Your task to perform on an android device: open app "Microsoft Excel" (install if not already installed) and go to login screen Image 0: 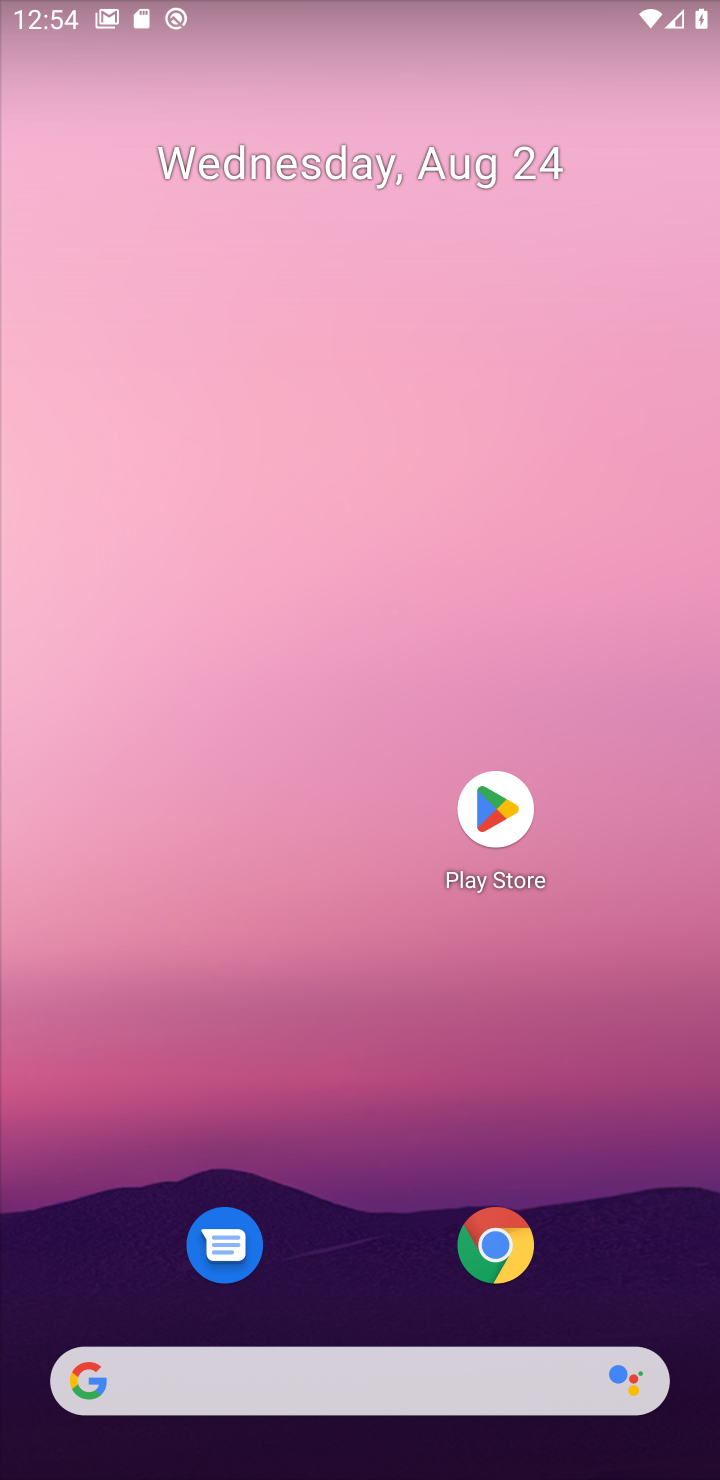
Step 0: click (494, 819)
Your task to perform on an android device: open app "Microsoft Excel" (install if not already installed) and go to login screen Image 1: 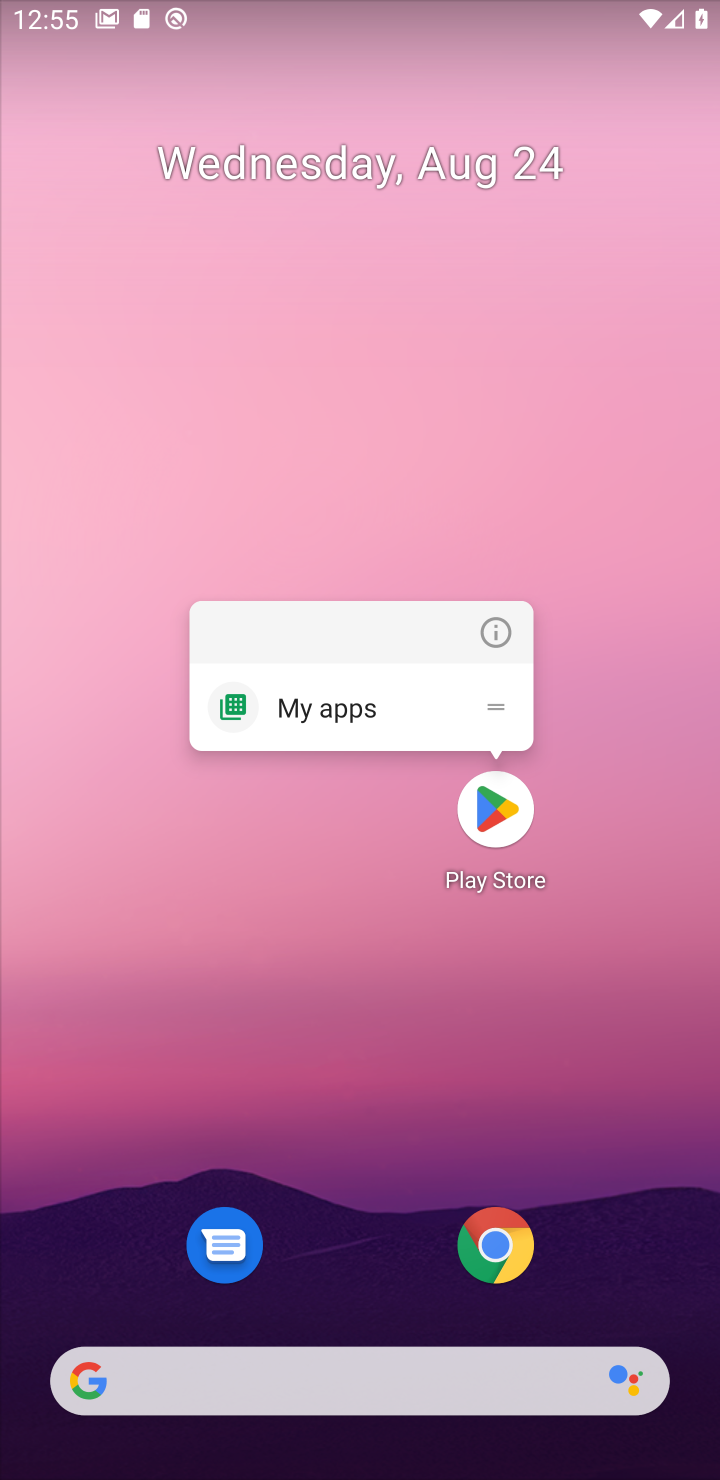
Step 1: click (494, 820)
Your task to perform on an android device: open app "Microsoft Excel" (install if not already installed) and go to login screen Image 2: 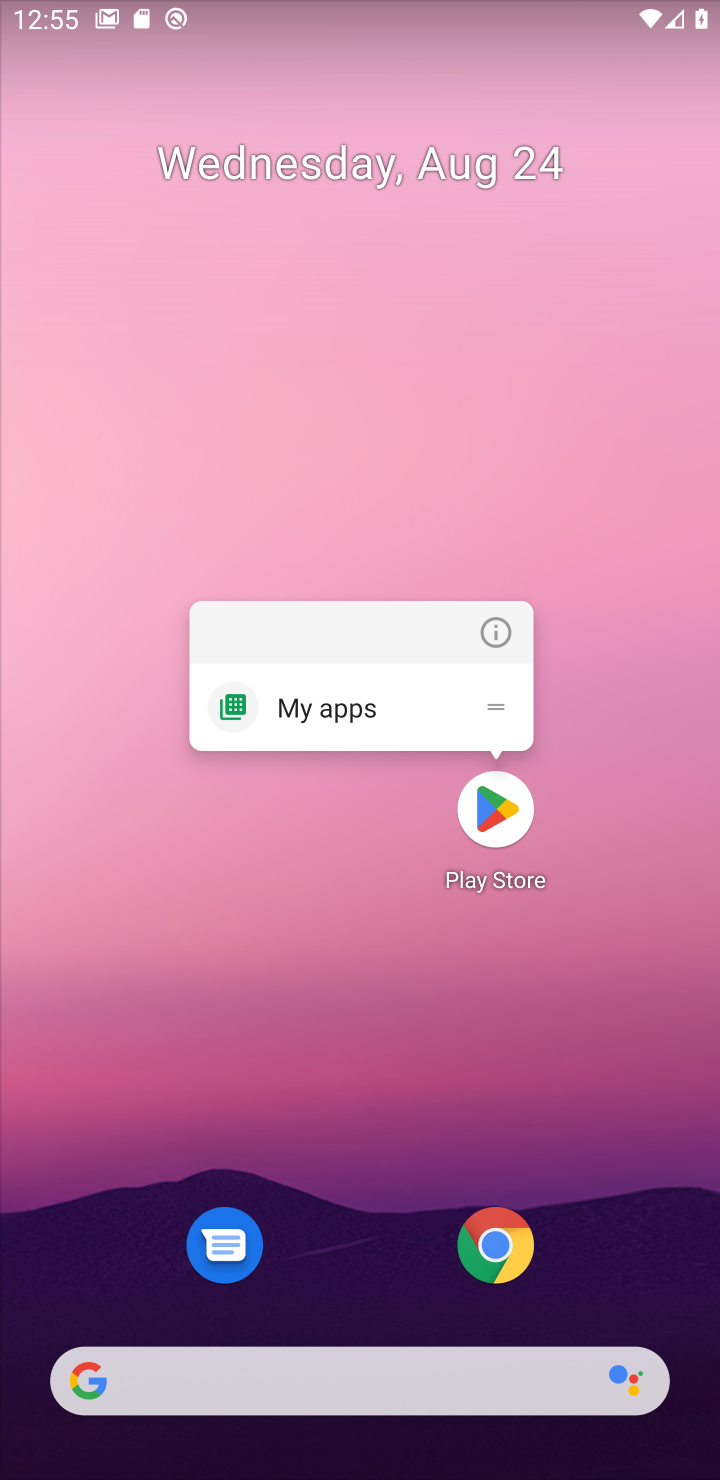
Step 2: click (494, 820)
Your task to perform on an android device: open app "Microsoft Excel" (install if not already installed) and go to login screen Image 3: 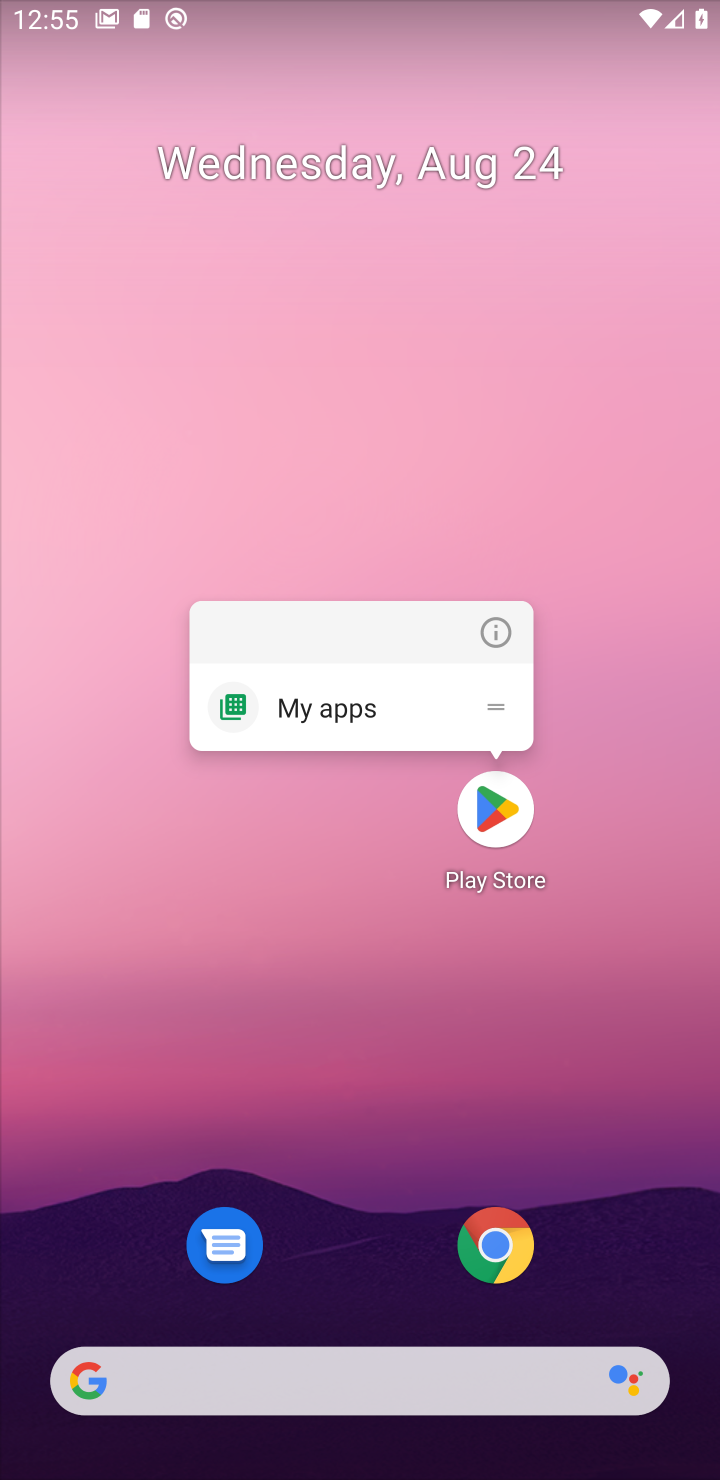
Step 3: click (494, 820)
Your task to perform on an android device: open app "Microsoft Excel" (install if not already installed) and go to login screen Image 4: 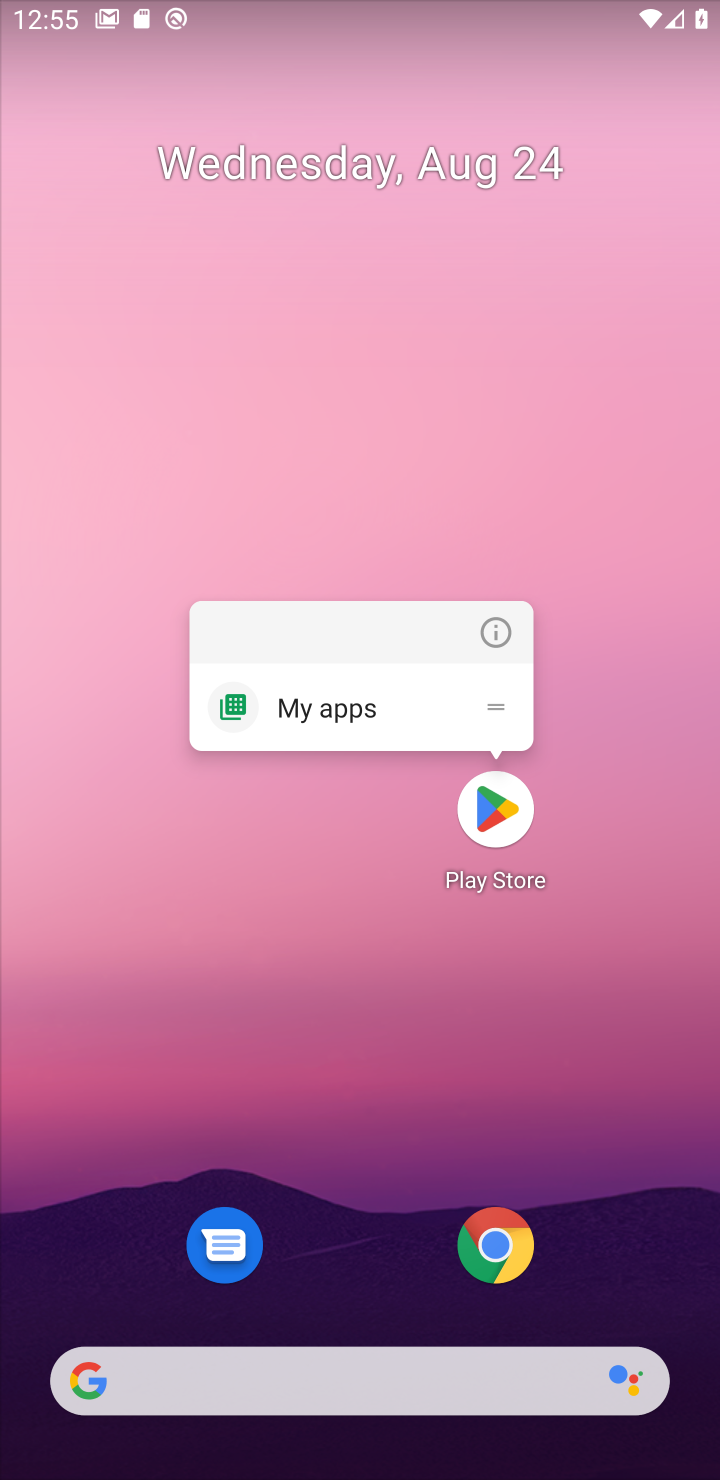
Step 4: click (494, 822)
Your task to perform on an android device: open app "Microsoft Excel" (install if not already installed) and go to login screen Image 5: 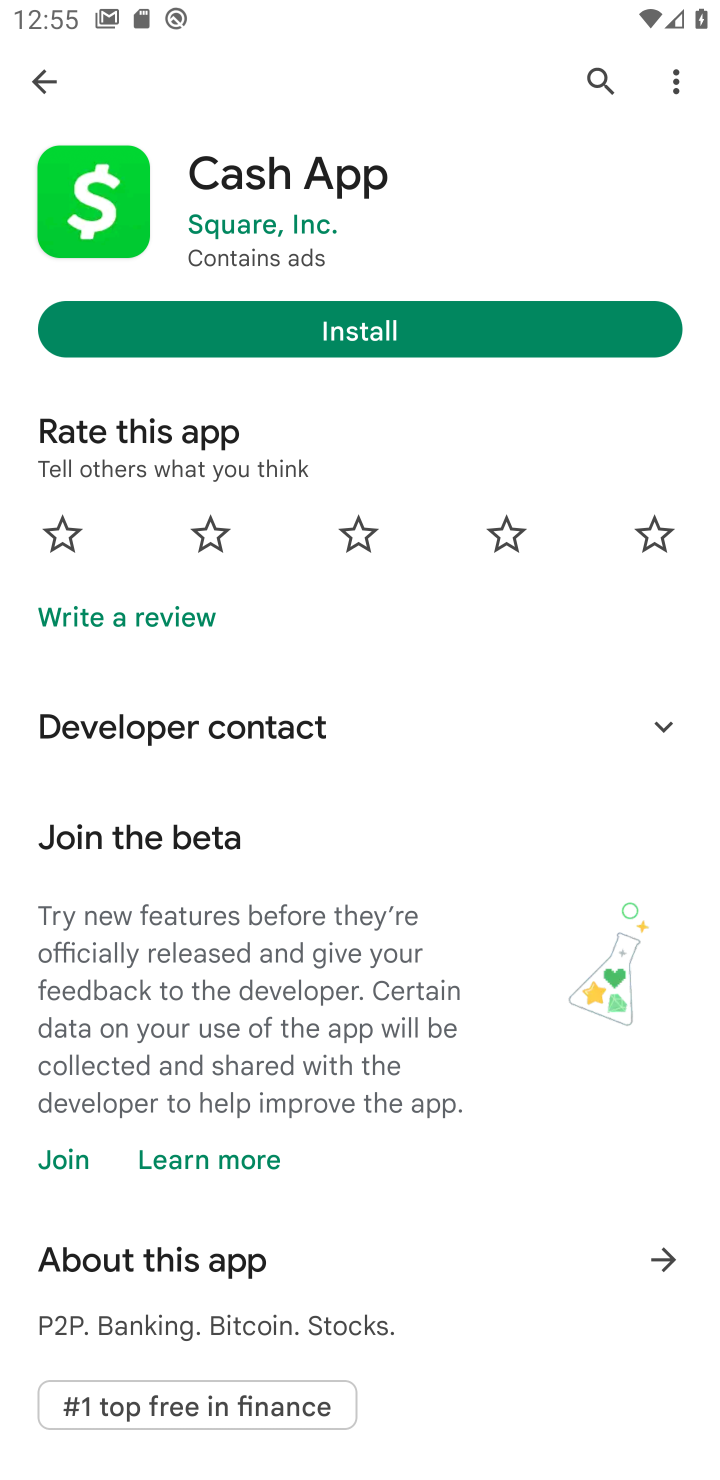
Step 5: click (586, 67)
Your task to perform on an android device: open app "Microsoft Excel" (install if not already installed) and go to login screen Image 6: 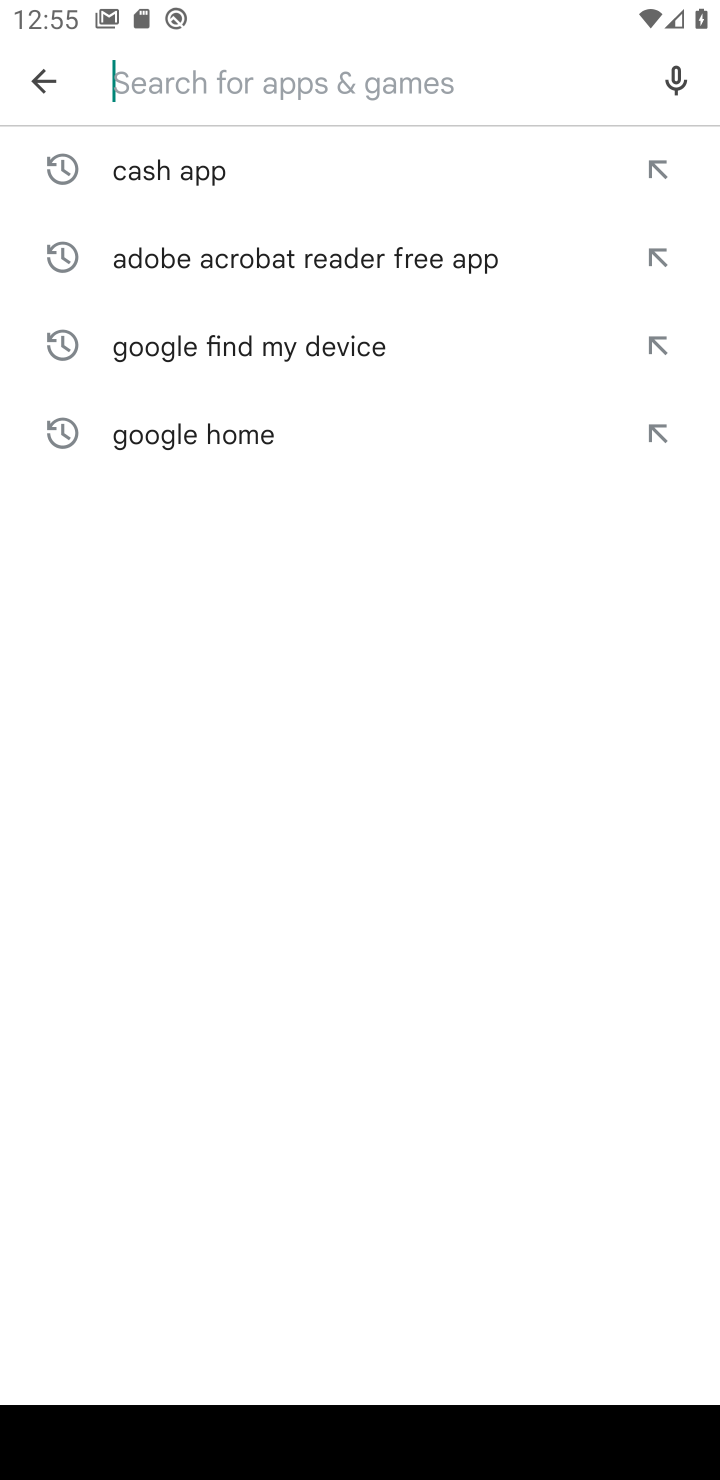
Step 6: type "Microsoft Excel"
Your task to perform on an android device: open app "Microsoft Excel" (install if not already installed) and go to login screen Image 7: 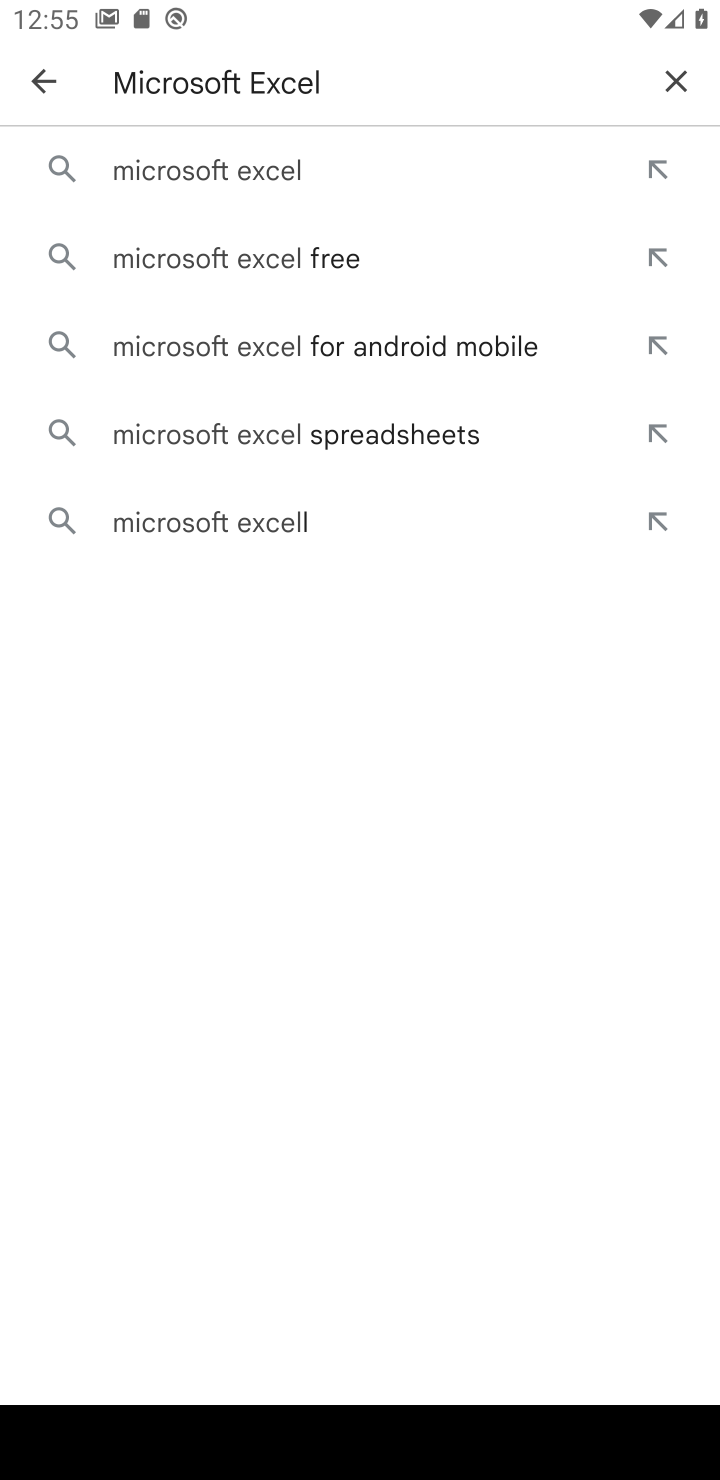
Step 7: click (221, 171)
Your task to perform on an android device: open app "Microsoft Excel" (install if not already installed) and go to login screen Image 8: 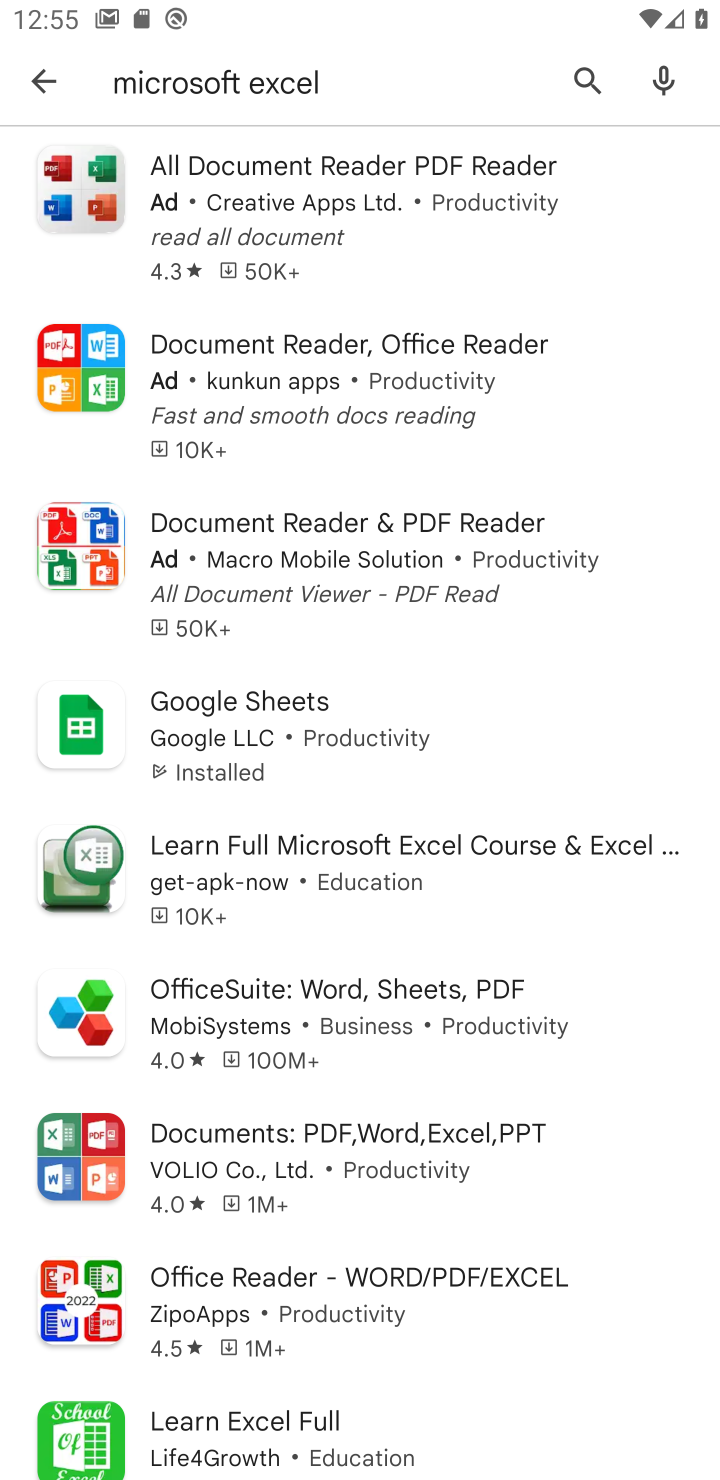
Step 8: task complete